Your task to perform on an android device: Play the last video I watched on Youtube Image 0: 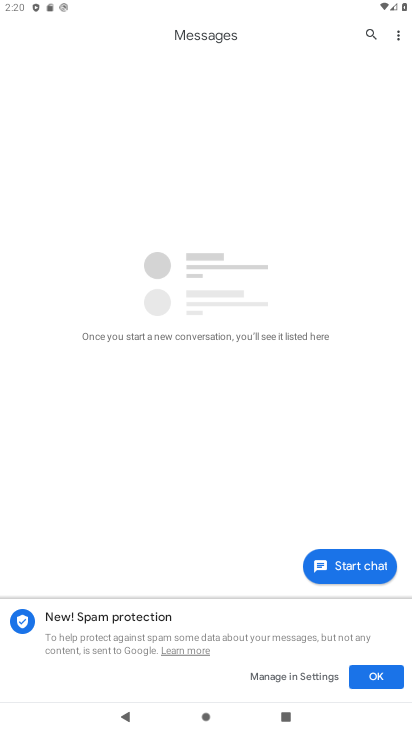
Step 0: press home button
Your task to perform on an android device: Play the last video I watched on Youtube Image 1: 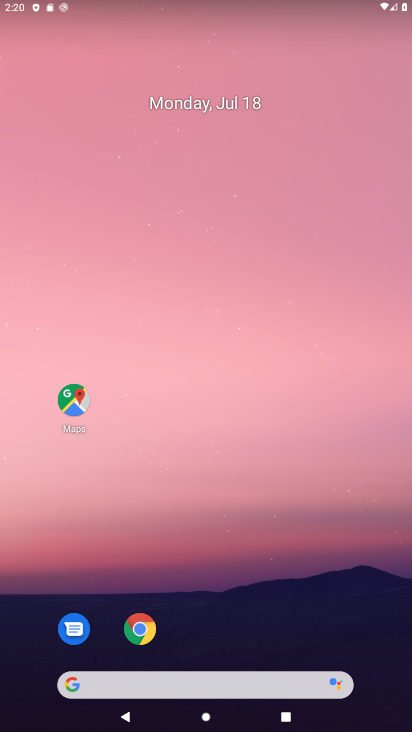
Step 1: drag from (151, 670) to (190, 247)
Your task to perform on an android device: Play the last video I watched on Youtube Image 2: 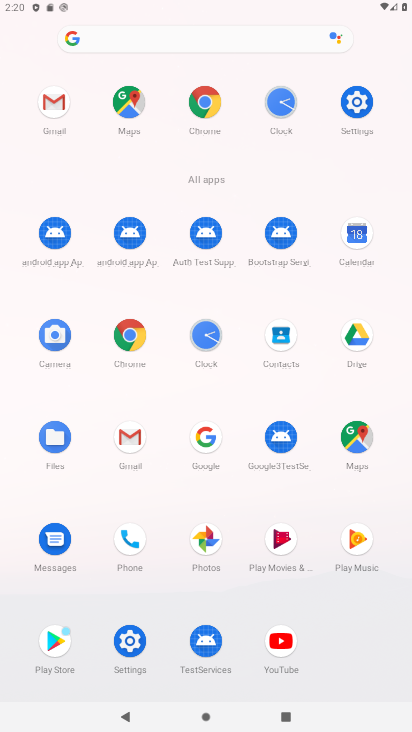
Step 2: click (275, 648)
Your task to perform on an android device: Play the last video I watched on Youtube Image 3: 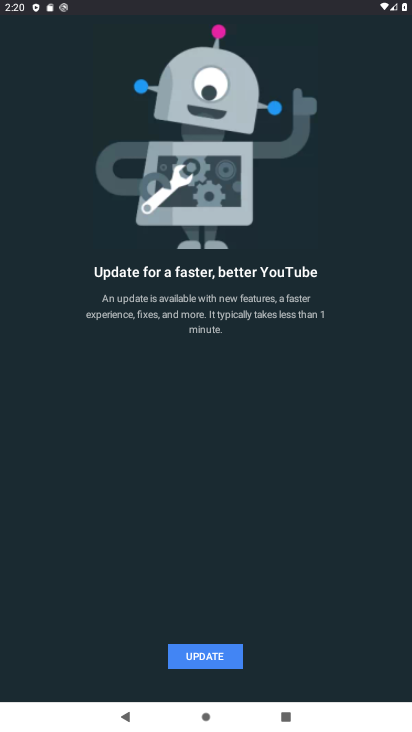
Step 3: click (226, 658)
Your task to perform on an android device: Play the last video I watched on Youtube Image 4: 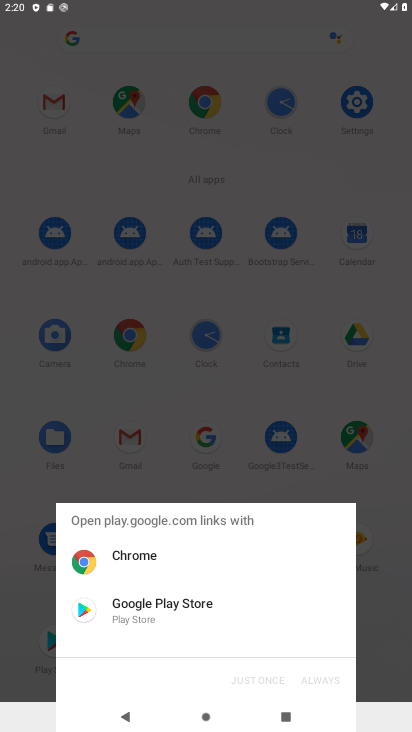
Step 4: click (174, 615)
Your task to perform on an android device: Play the last video I watched on Youtube Image 5: 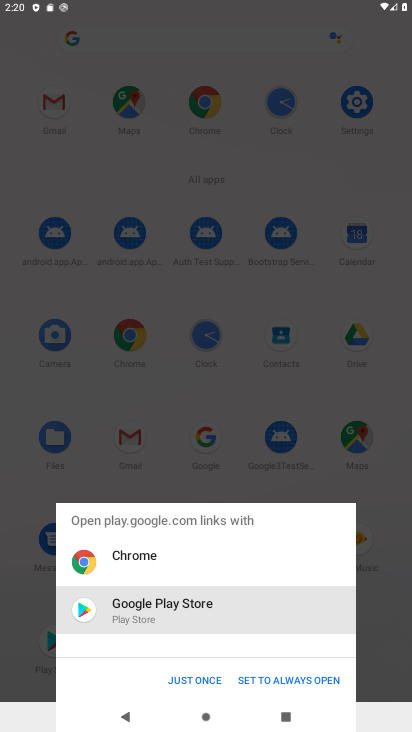
Step 5: click (198, 683)
Your task to perform on an android device: Play the last video I watched on Youtube Image 6: 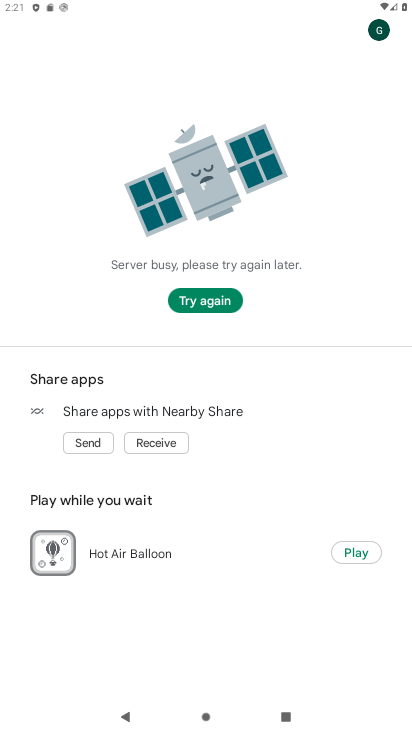
Step 6: click (193, 295)
Your task to perform on an android device: Play the last video I watched on Youtube Image 7: 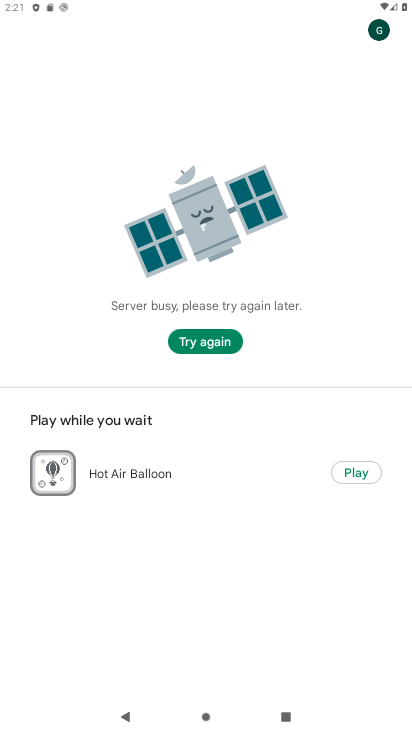
Step 7: task complete